Your task to perform on an android device: toggle airplane mode Image 0: 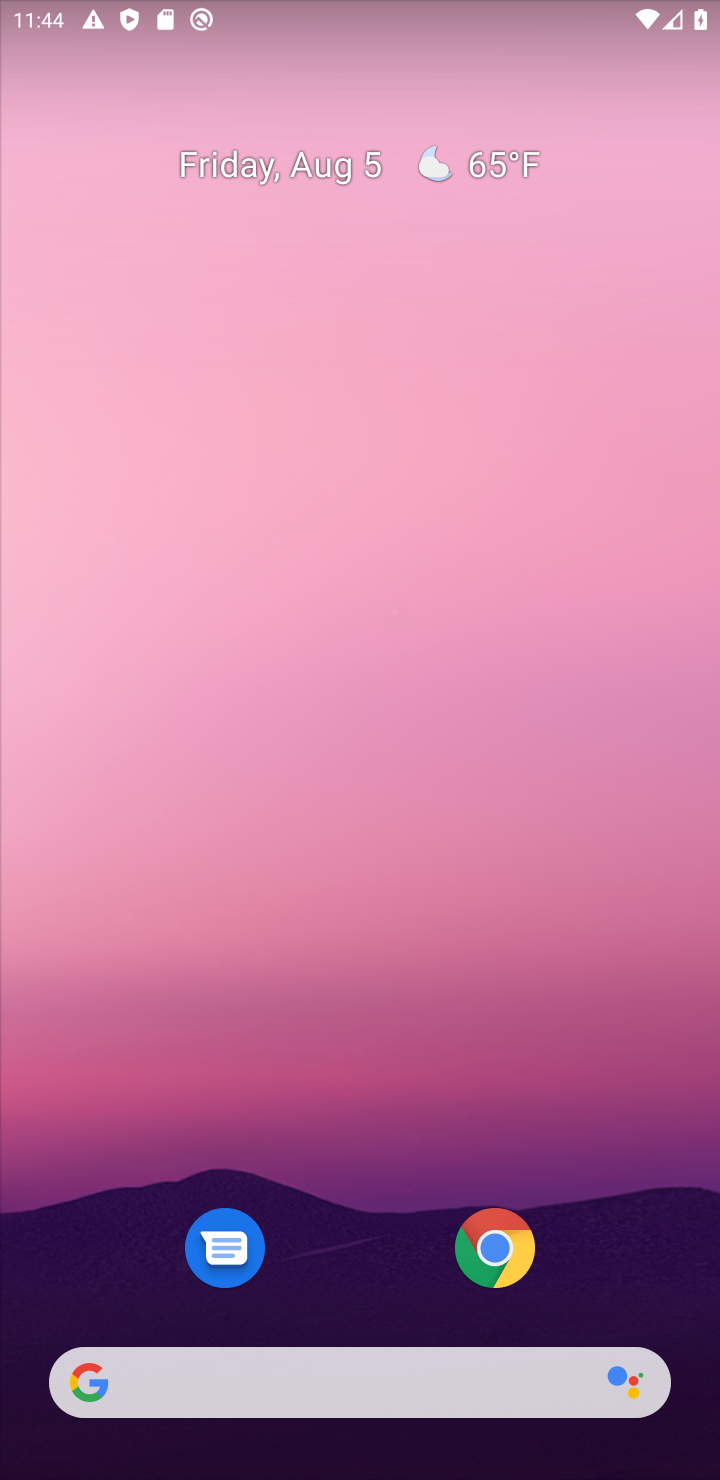
Step 0: press home button
Your task to perform on an android device: toggle airplane mode Image 1: 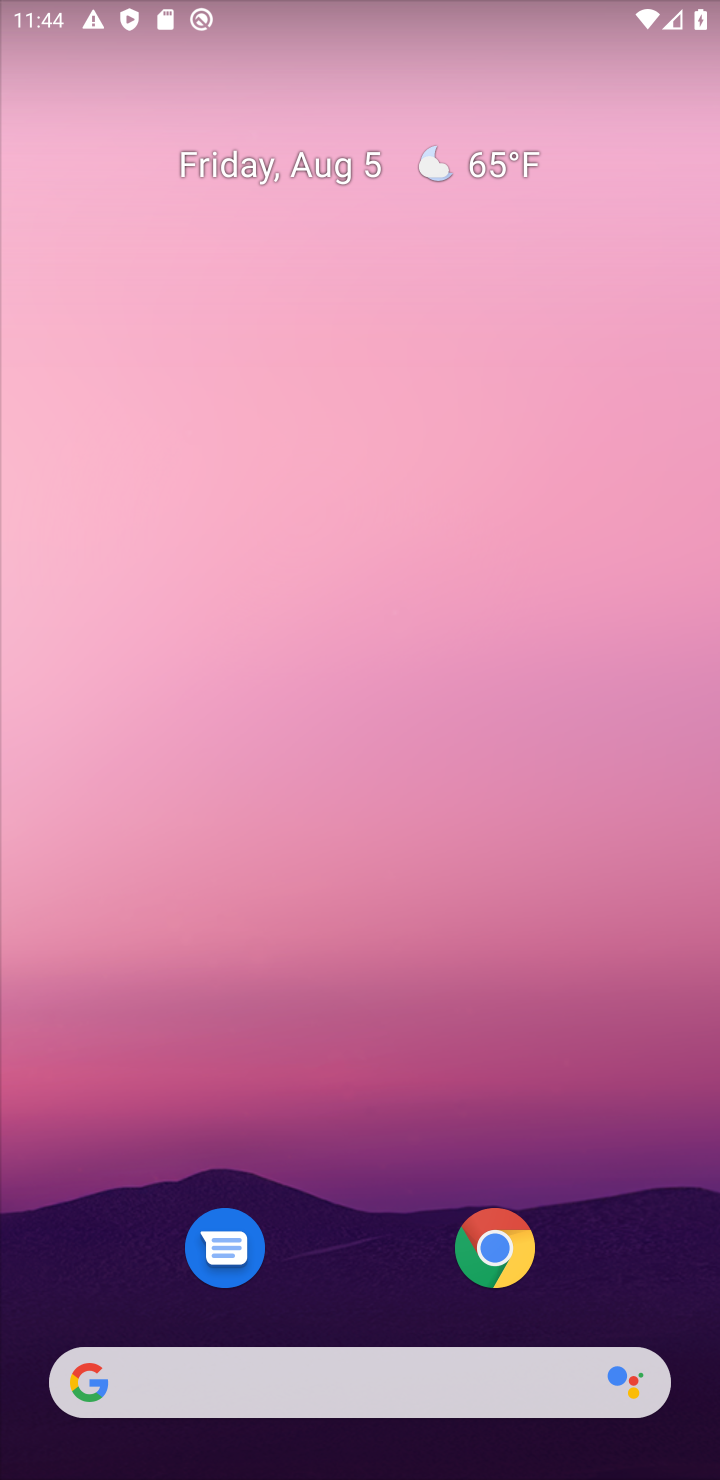
Step 1: drag from (386, 1302) to (499, 286)
Your task to perform on an android device: toggle airplane mode Image 2: 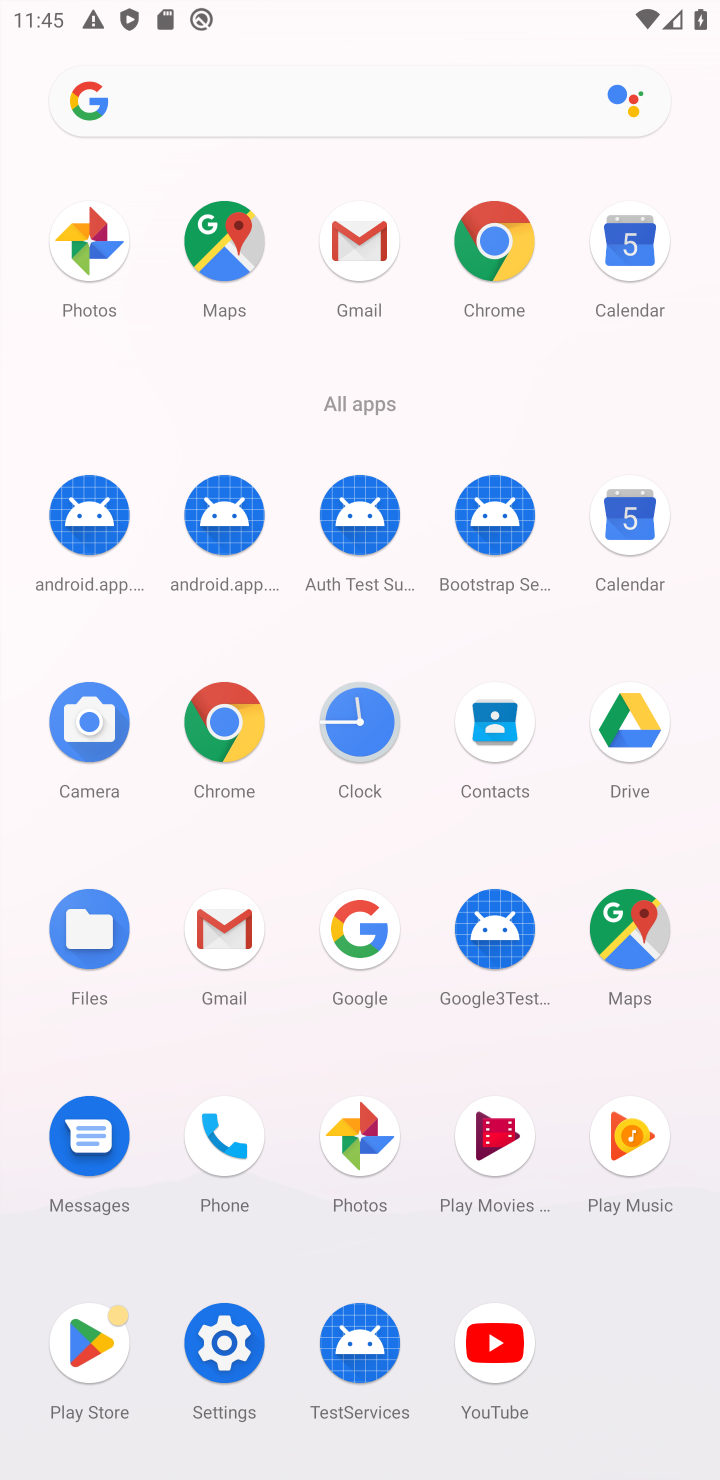
Step 2: click (219, 1327)
Your task to perform on an android device: toggle airplane mode Image 3: 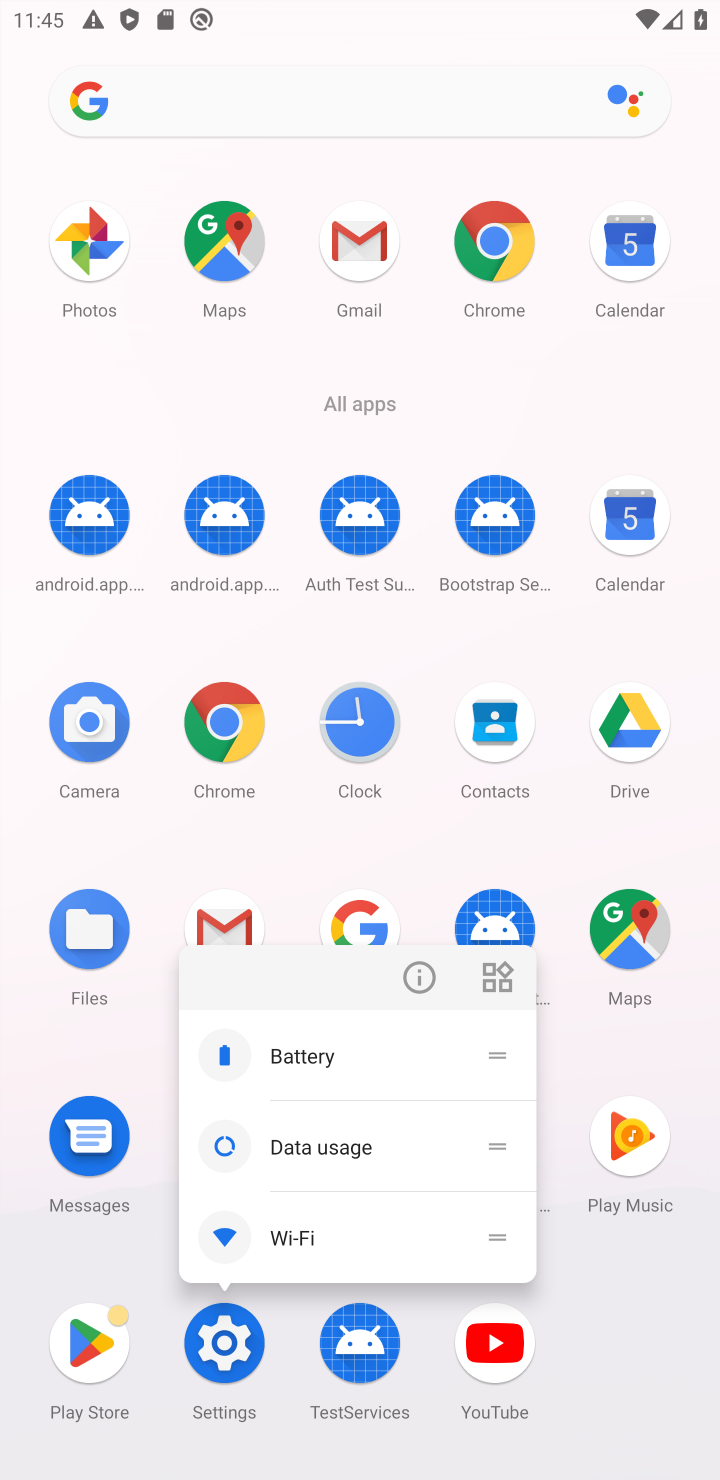
Step 3: click (224, 1336)
Your task to perform on an android device: toggle airplane mode Image 4: 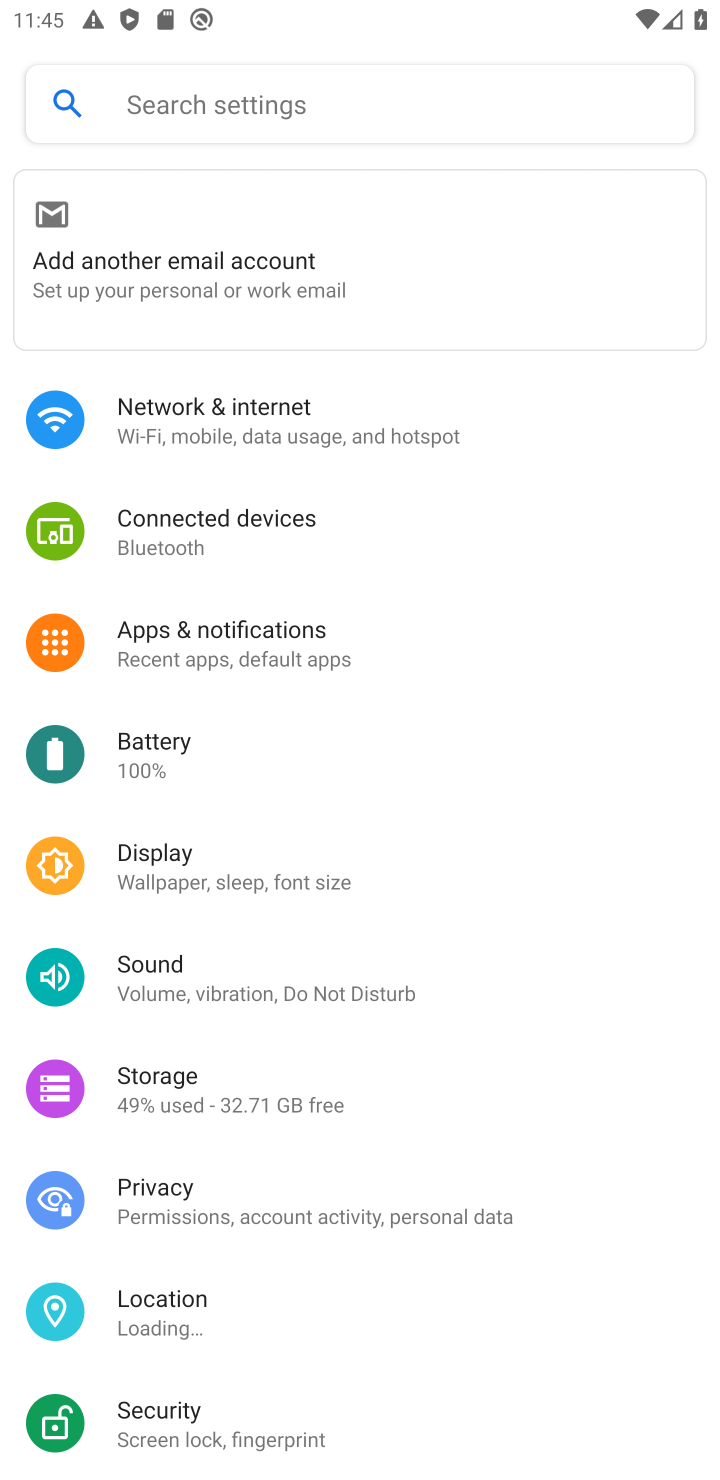
Step 4: click (319, 414)
Your task to perform on an android device: toggle airplane mode Image 5: 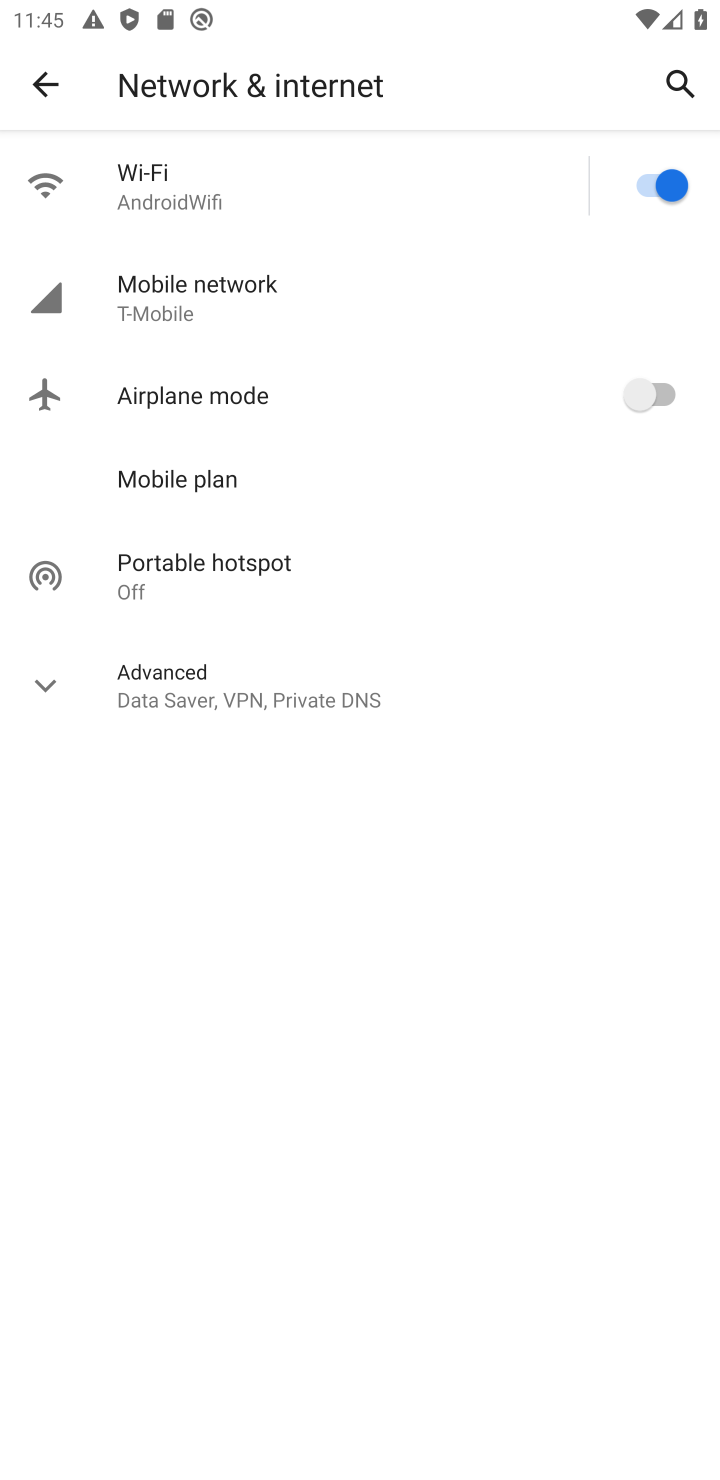
Step 5: click (659, 391)
Your task to perform on an android device: toggle airplane mode Image 6: 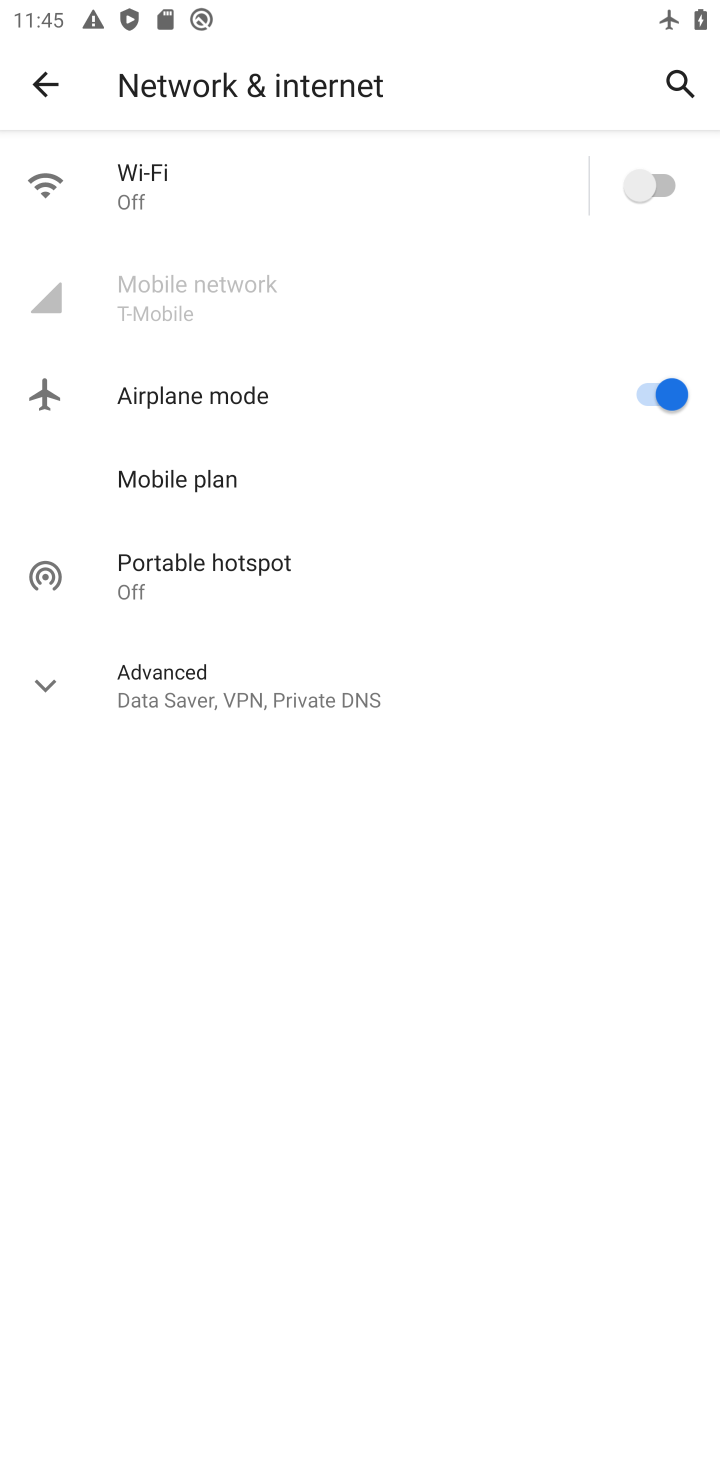
Step 6: task complete